Your task to perform on an android device: Open Yahoo.com Image 0: 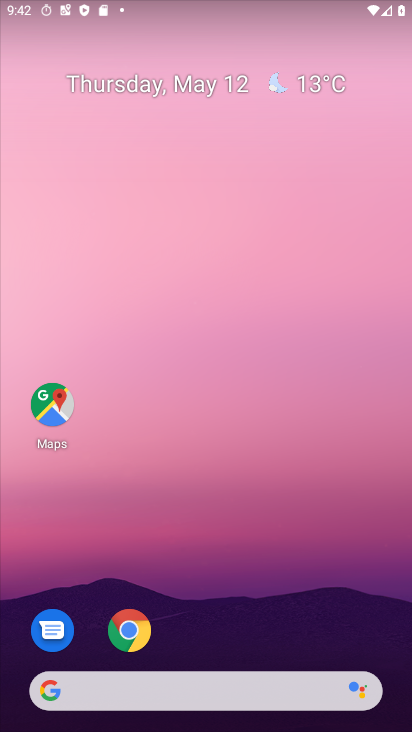
Step 0: click (129, 617)
Your task to perform on an android device: Open Yahoo.com Image 1: 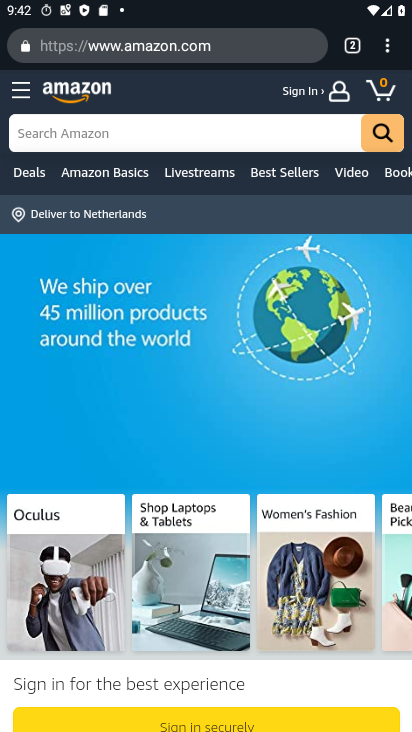
Step 1: click (143, 53)
Your task to perform on an android device: Open Yahoo.com Image 2: 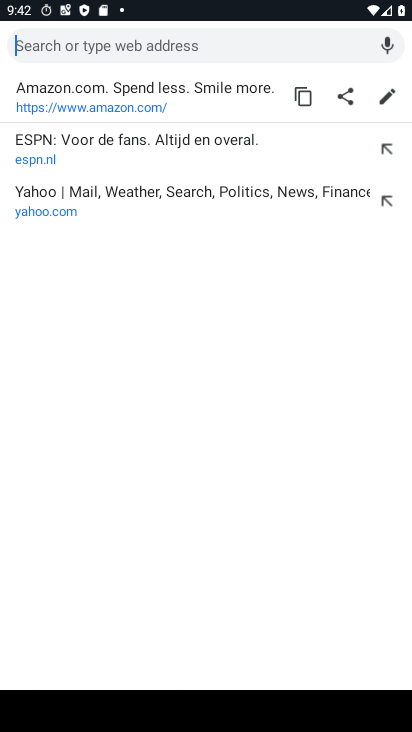
Step 2: click (196, 195)
Your task to perform on an android device: Open Yahoo.com Image 3: 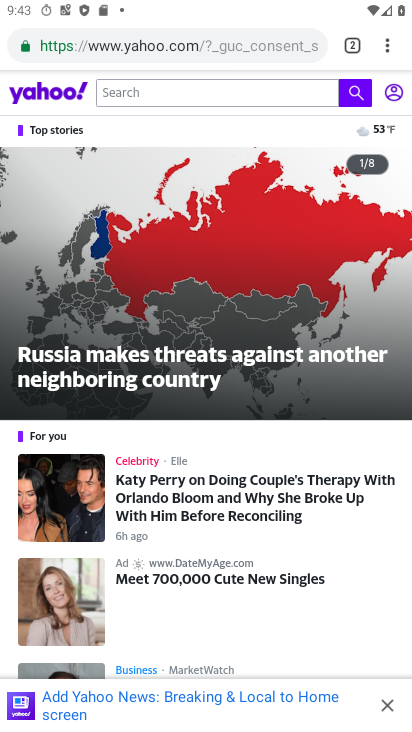
Step 3: task complete